Your task to perform on an android device: Go to settings Image 0: 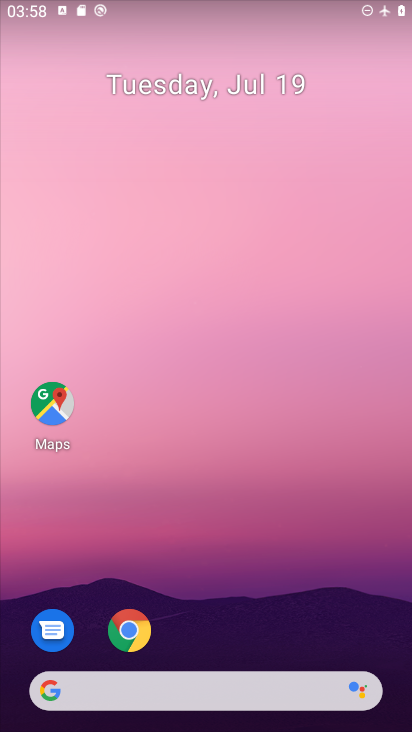
Step 0: drag from (380, 629) to (302, 164)
Your task to perform on an android device: Go to settings Image 1: 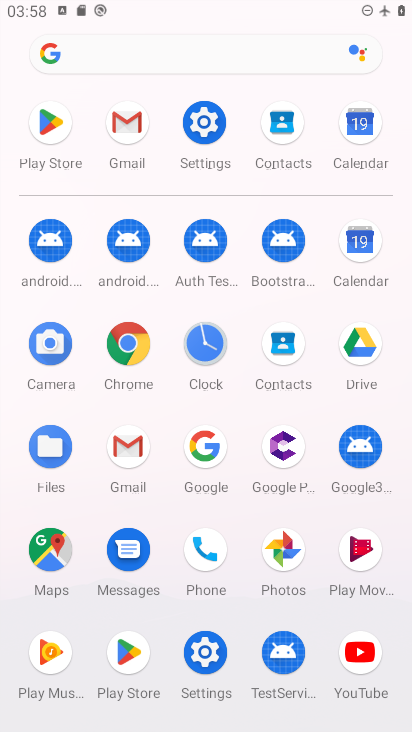
Step 1: click (204, 653)
Your task to perform on an android device: Go to settings Image 2: 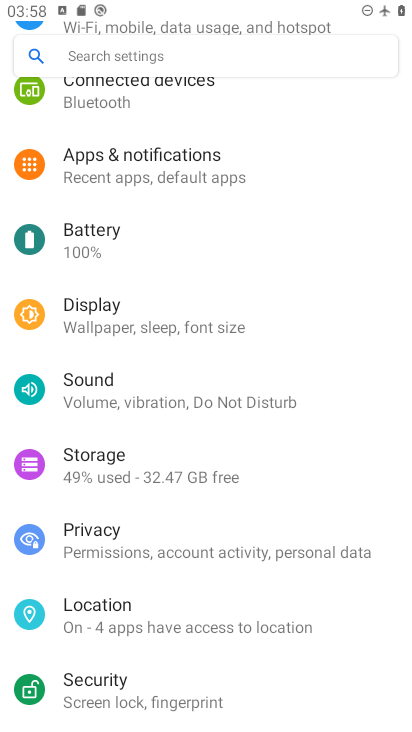
Step 2: task complete